Your task to perform on an android device: Go to Wikipedia Image 0: 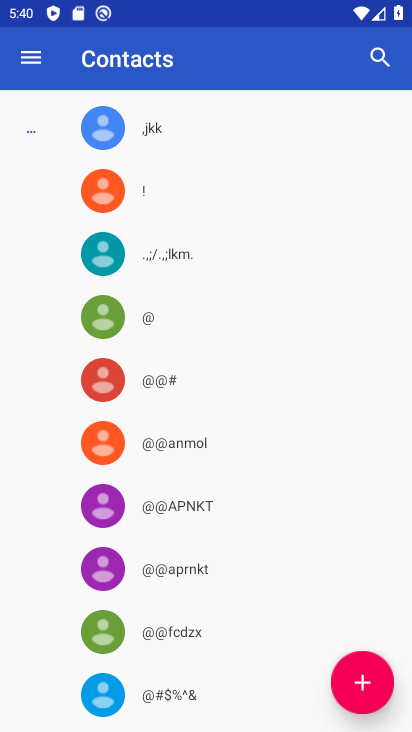
Step 0: press home button
Your task to perform on an android device: Go to Wikipedia Image 1: 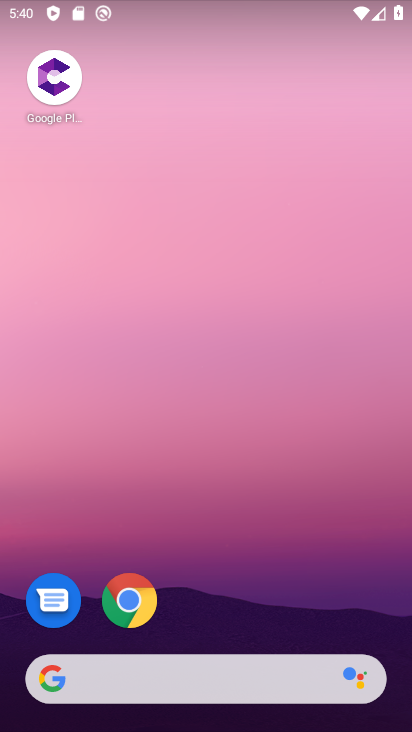
Step 1: drag from (243, 654) to (199, 1)
Your task to perform on an android device: Go to Wikipedia Image 2: 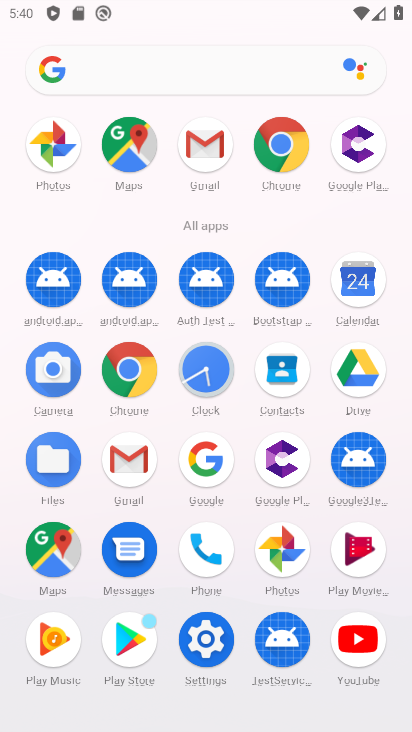
Step 2: click (143, 382)
Your task to perform on an android device: Go to Wikipedia Image 3: 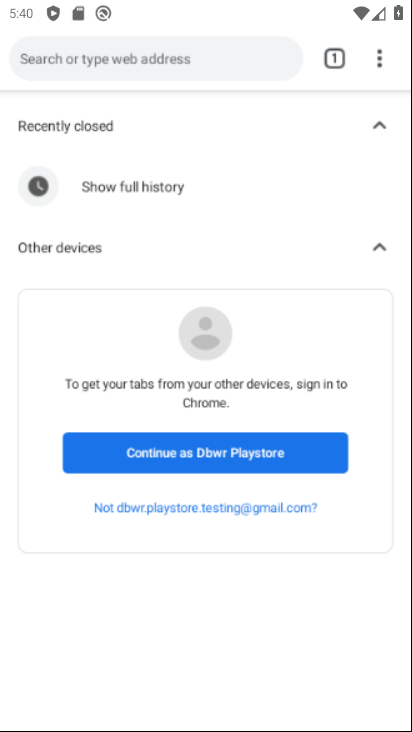
Step 3: drag from (375, 57) to (239, 116)
Your task to perform on an android device: Go to Wikipedia Image 4: 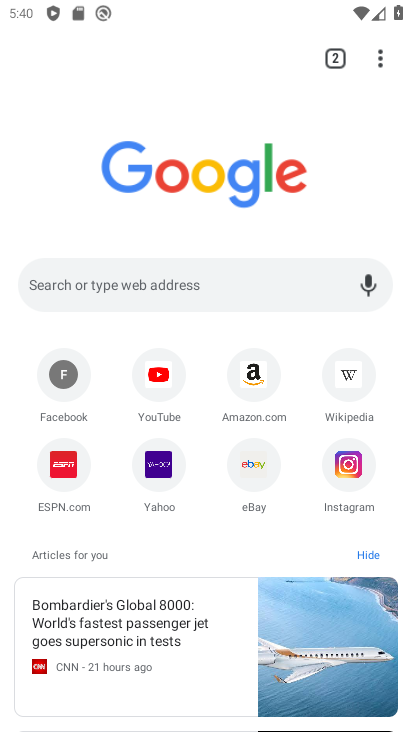
Step 4: click (335, 385)
Your task to perform on an android device: Go to Wikipedia Image 5: 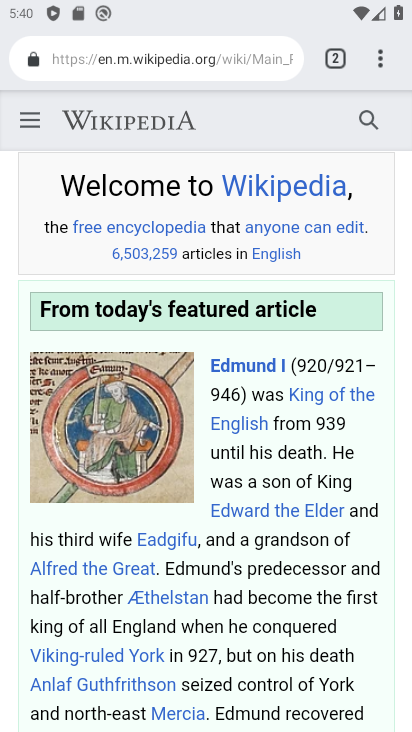
Step 5: task complete